Your task to perform on an android device: set the timer Image 0: 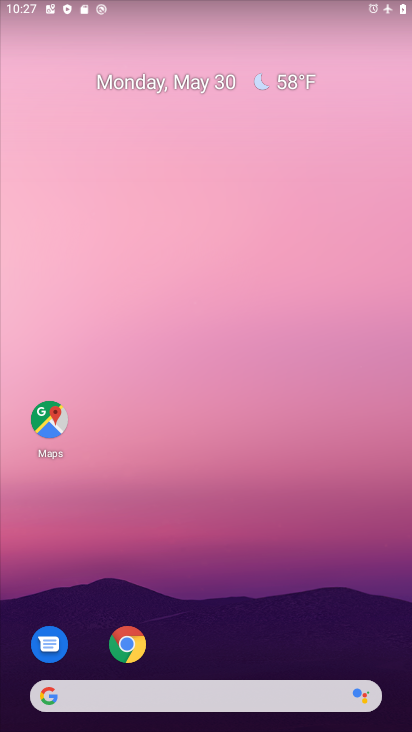
Step 0: drag from (379, 636) to (299, 193)
Your task to perform on an android device: set the timer Image 1: 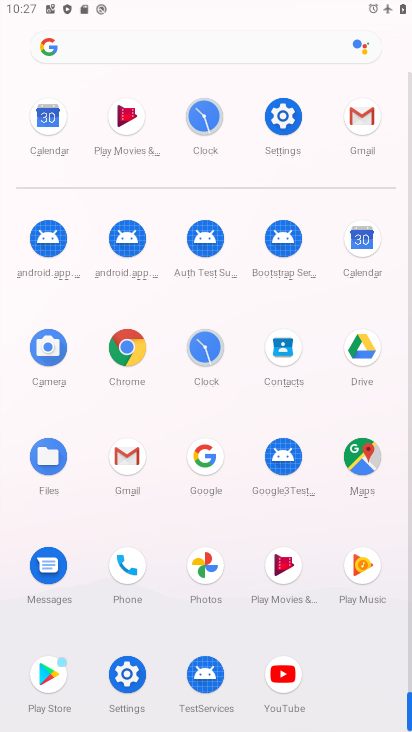
Step 1: click (204, 344)
Your task to perform on an android device: set the timer Image 2: 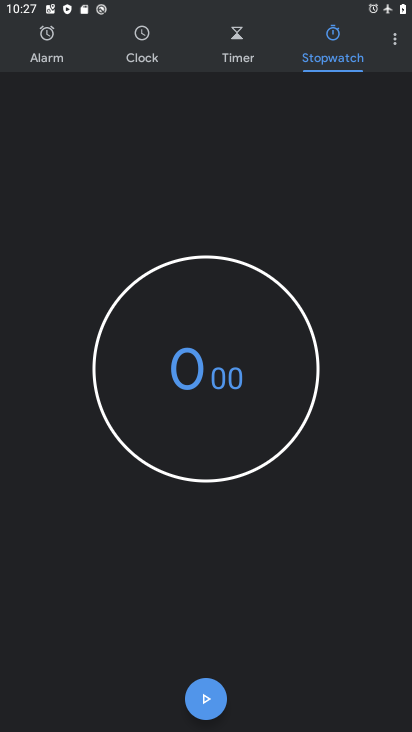
Step 2: click (239, 51)
Your task to perform on an android device: set the timer Image 3: 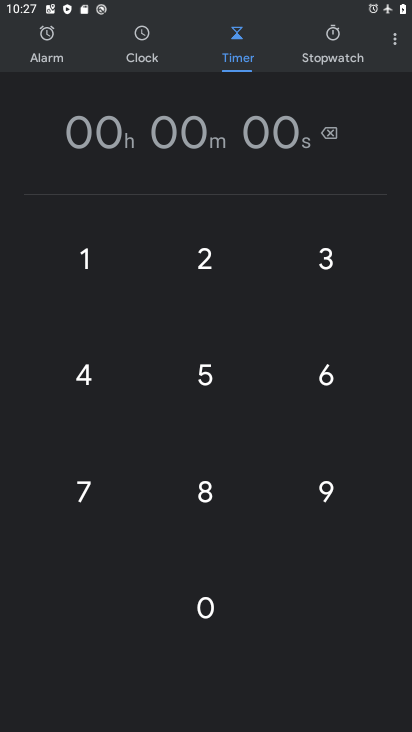
Step 3: click (84, 247)
Your task to perform on an android device: set the timer Image 4: 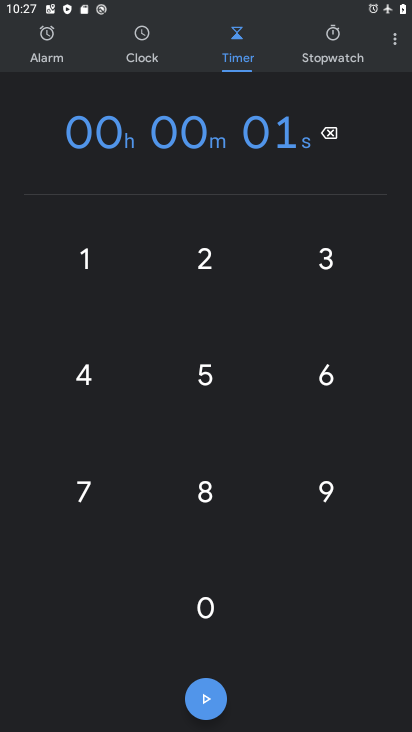
Step 4: click (310, 253)
Your task to perform on an android device: set the timer Image 5: 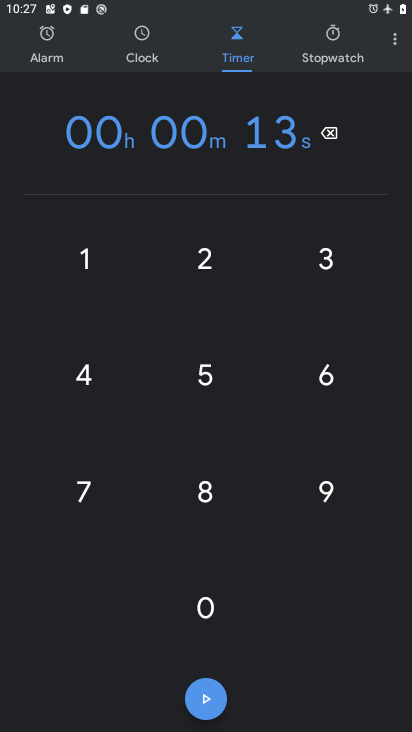
Step 5: click (210, 601)
Your task to perform on an android device: set the timer Image 6: 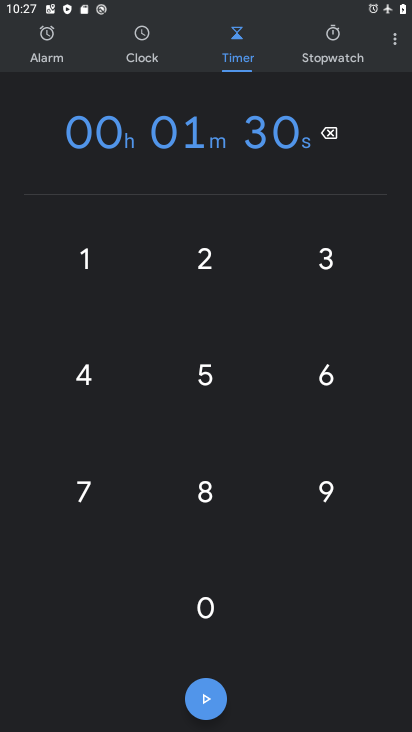
Step 6: click (210, 601)
Your task to perform on an android device: set the timer Image 7: 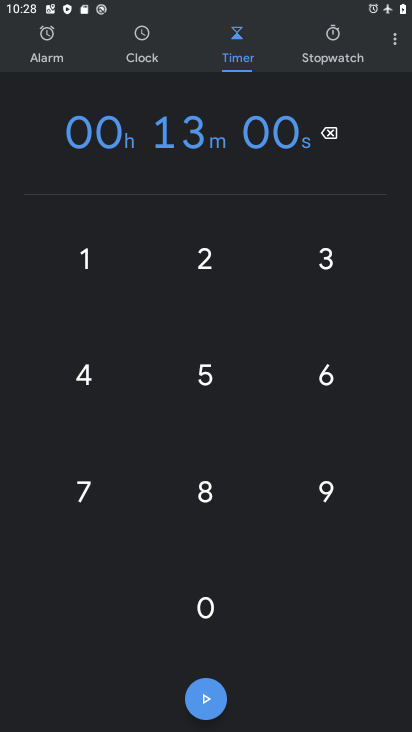
Step 7: click (204, 599)
Your task to perform on an android device: set the timer Image 8: 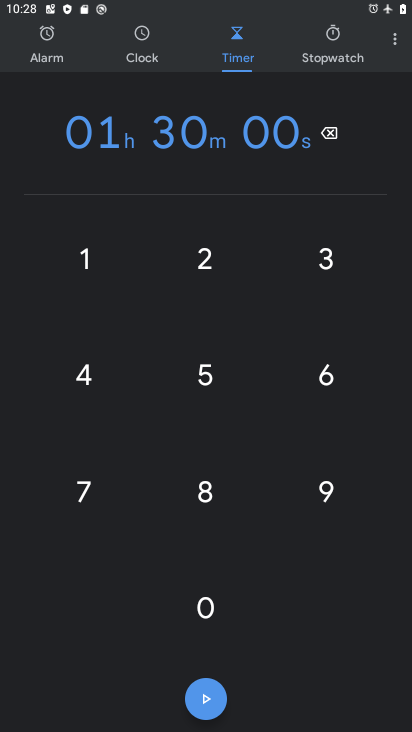
Step 8: task complete